Your task to perform on an android device: open app "DoorDash - Food Delivery" (install if not already installed) Image 0: 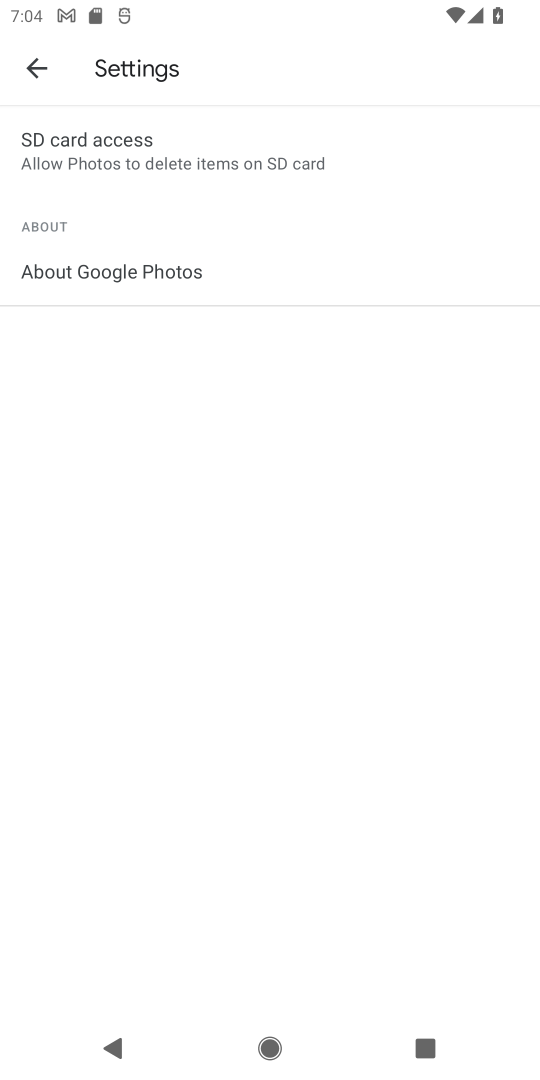
Step 0: press home button
Your task to perform on an android device: open app "DoorDash - Food Delivery" (install if not already installed) Image 1: 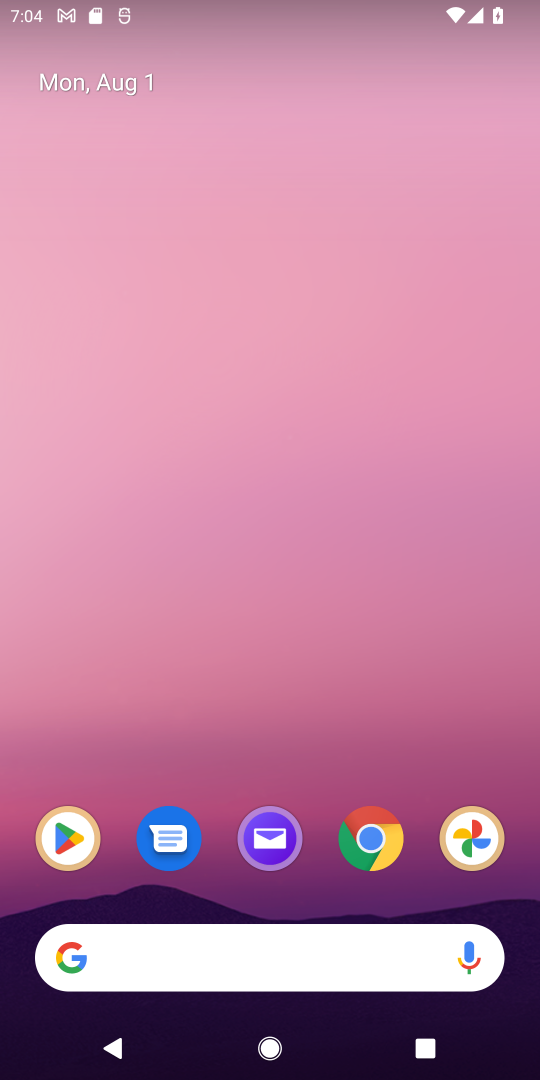
Step 1: click (86, 840)
Your task to perform on an android device: open app "DoorDash - Food Delivery" (install if not already installed) Image 2: 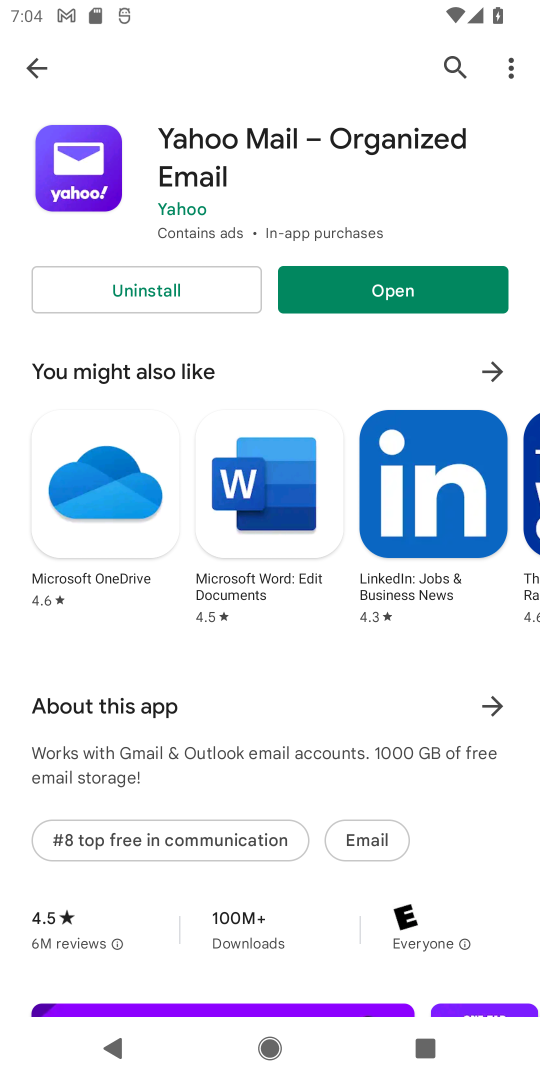
Step 2: click (451, 59)
Your task to perform on an android device: open app "DoorDash - Food Delivery" (install if not already installed) Image 3: 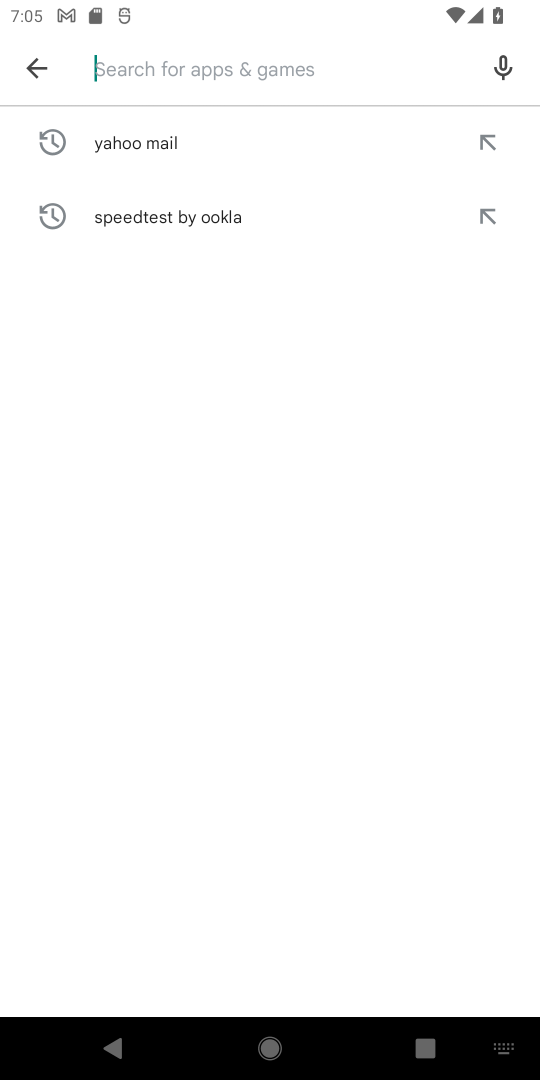
Step 3: type "Doordash - food delivery"
Your task to perform on an android device: open app "DoorDash - Food Delivery" (install if not already installed) Image 4: 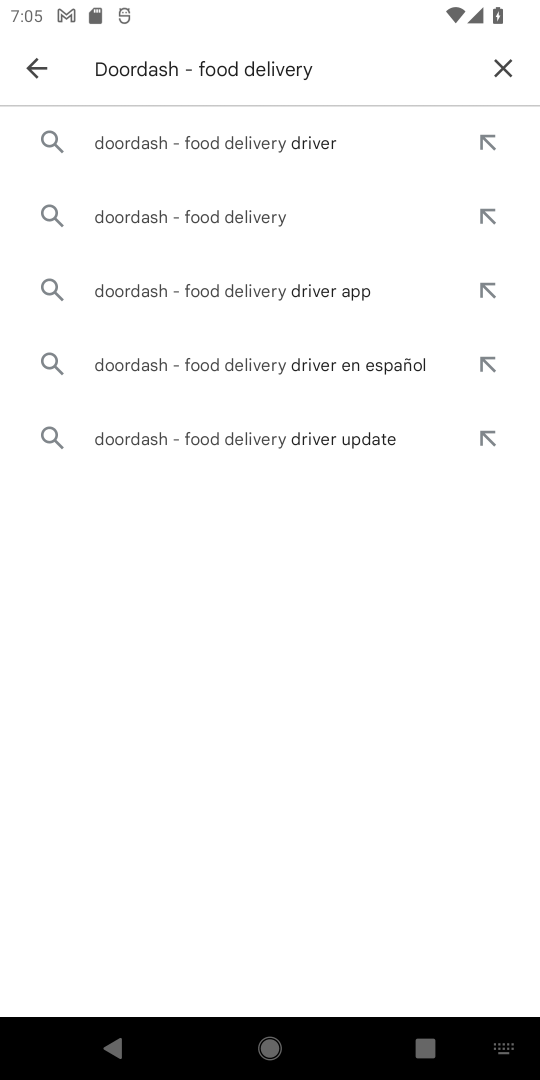
Step 4: click (251, 213)
Your task to perform on an android device: open app "DoorDash - Food Delivery" (install if not already installed) Image 5: 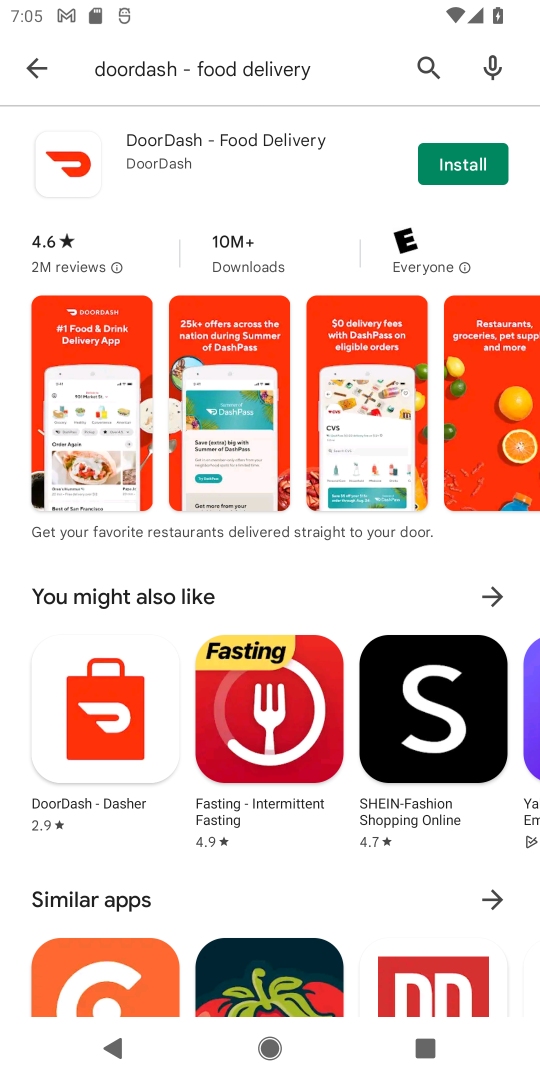
Step 5: click (194, 164)
Your task to perform on an android device: open app "DoorDash - Food Delivery" (install if not already installed) Image 6: 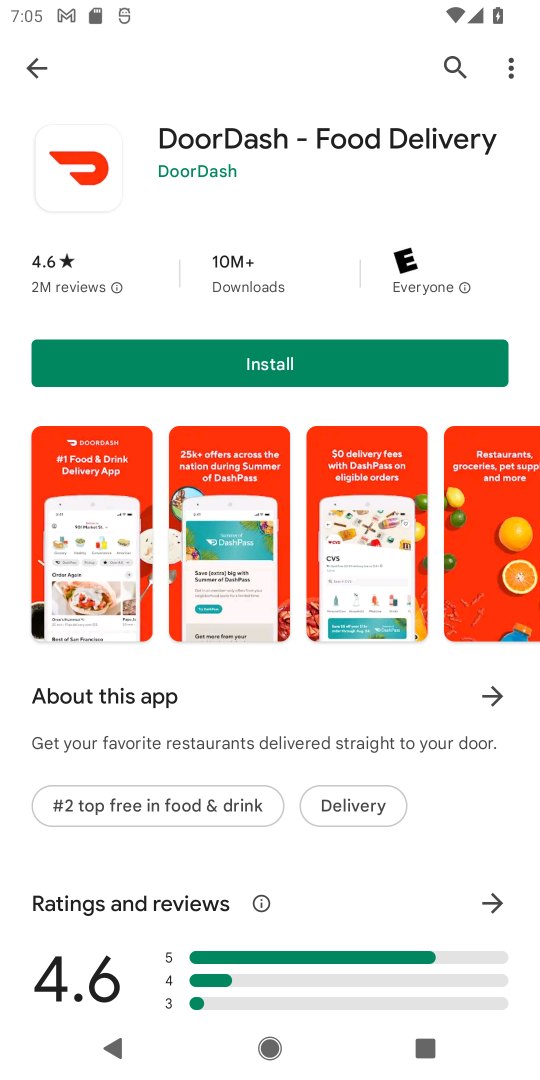
Step 6: click (181, 349)
Your task to perform on an android device: open app "DoorDash - Food Delivery" (install if not already installed) Image 7: 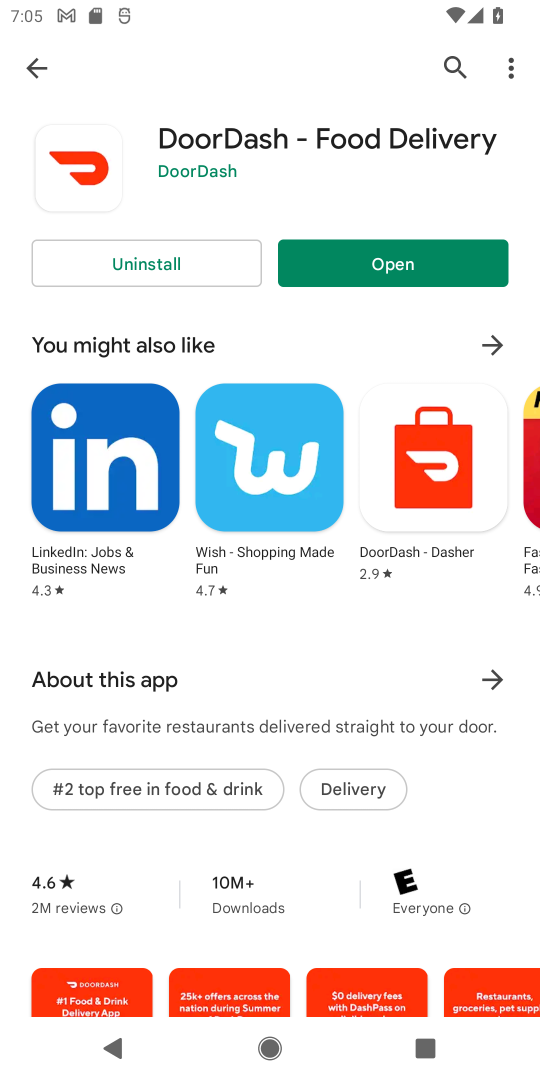
Step 7: click (420, 266)
Your task to perform on an android device: open app "DoorDash - Food Delivery" (install if not already installed) Image 8: 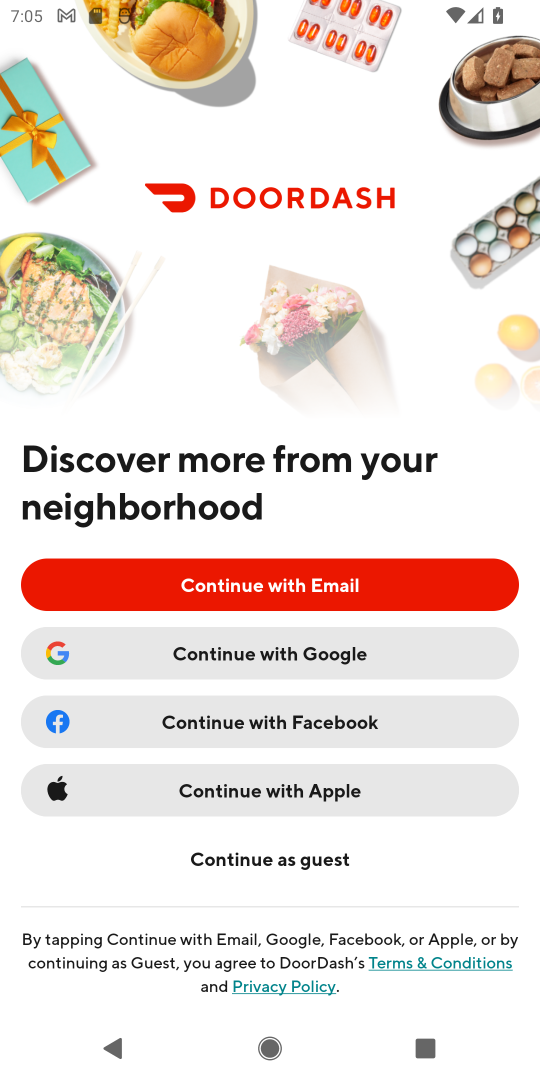
Step 8: task complete